Your task to perform on an android device: Open Wikipedia Image 0: 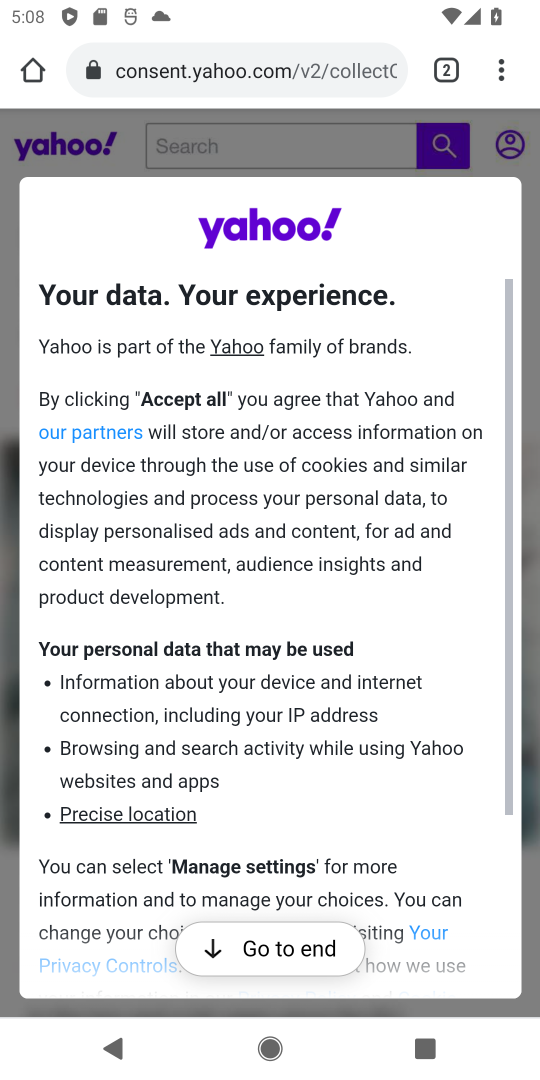
Step 0: press back button
Your task to perform on an android device: Open Wikipedia Image 1: 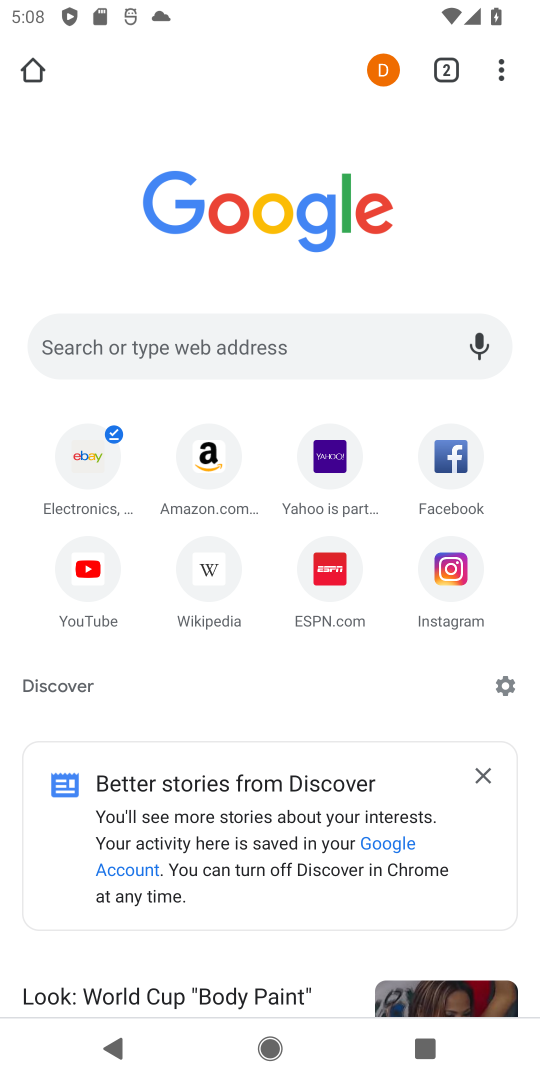
Step 1: click (200, 564)
Your task to perform on an android device: Open Wikipedia Image 2: 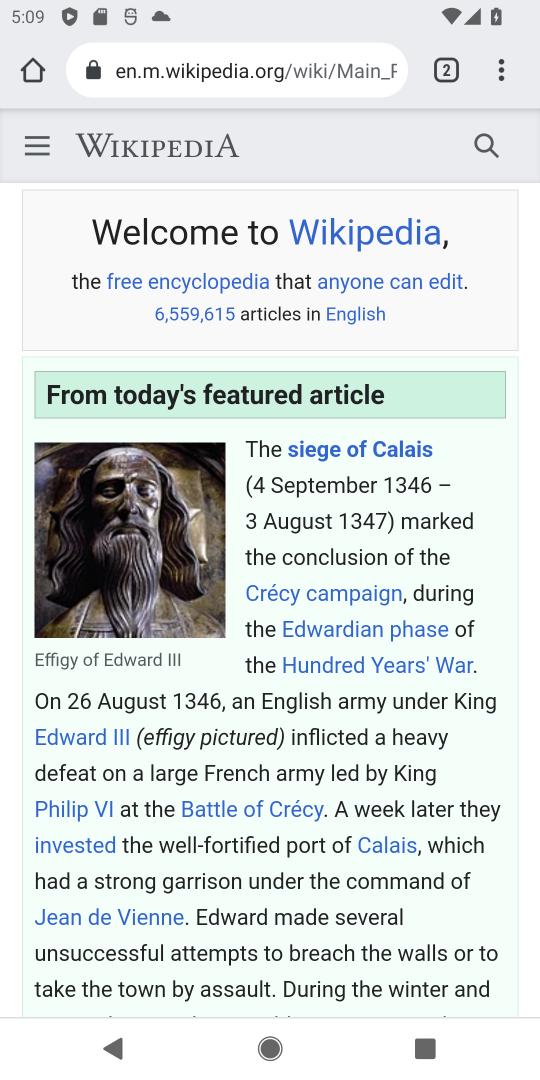
Step 2: task complete